Your task to perform on an android device: Open Google Maps Image 0: 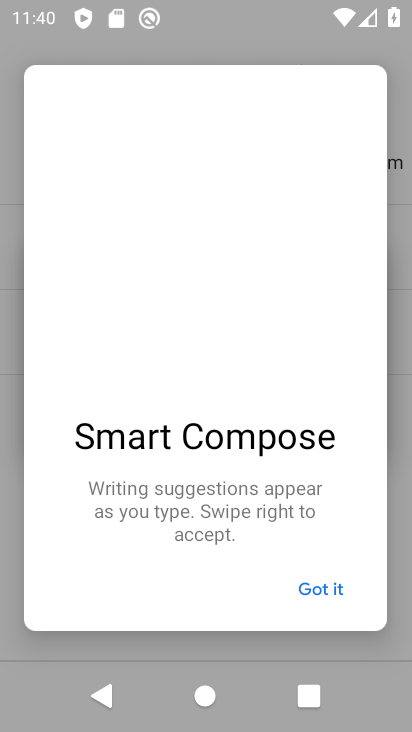
Step 0: drag from (352, 510) to (354, 325)
Your task to perform on an android device: Open Google Maps Image 1: 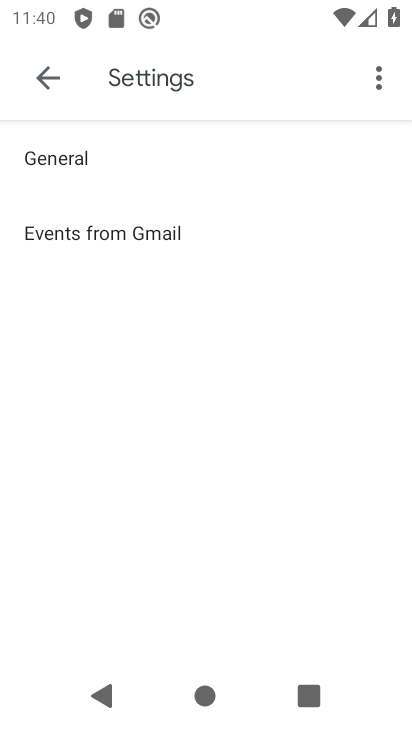
Step 1: press home button
Your task to perform on an android device: Open Google Maps Image 2: 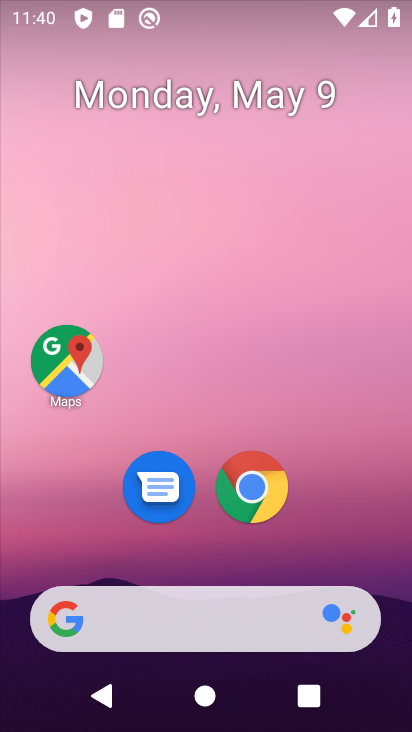
Step 2: click (69, 363)
Your task to perform on an android device: Open Google Maps Image 3: 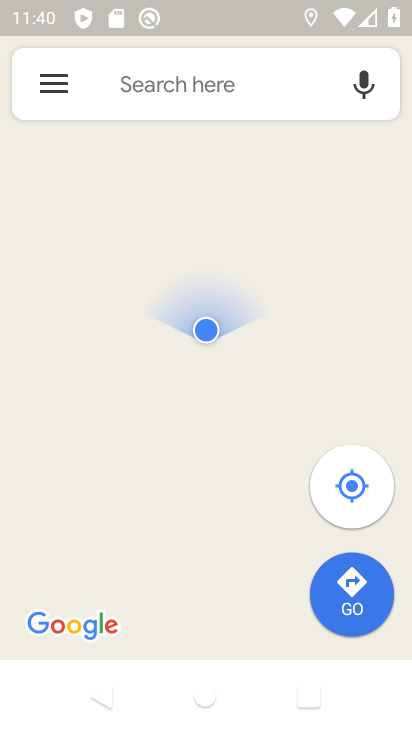
Step 3: task complete